Your task to perform on an android device: turn off notifications in google photos Image 0: 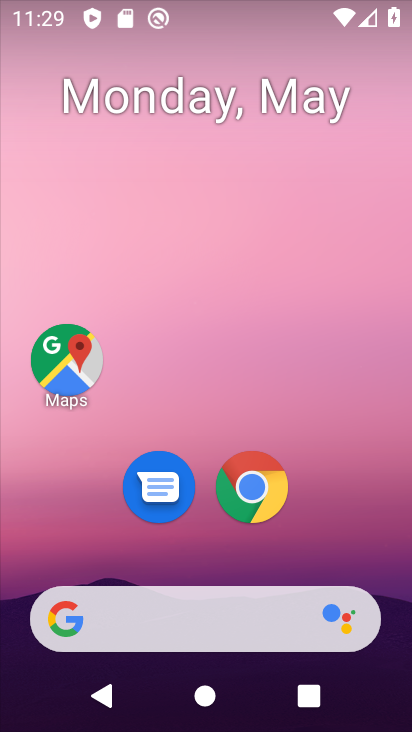
Step 0: drag from (9, 584) to (239, 218)
Your task to perform on an android device: turn off notifications in google photos Image 1: 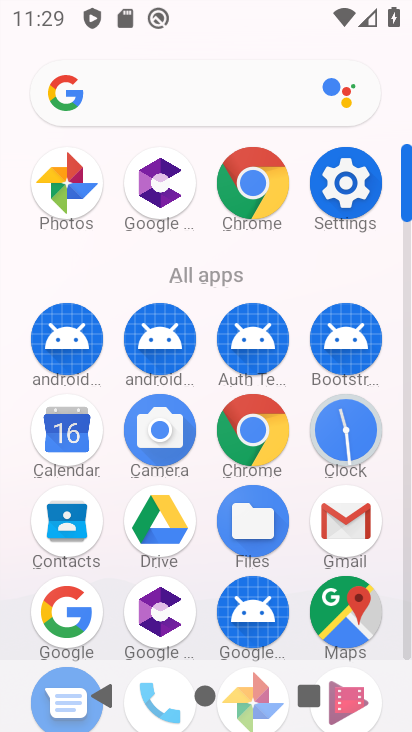
Step 1: click (72, 188)
Your task to perform on an android device: turn off notifications in google photos Image 2: 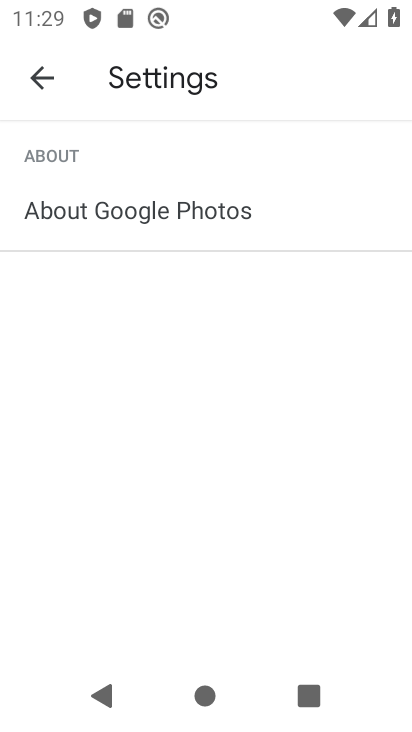
Step 2: click (36, 81)
Your task to perform on an android device: turn off notifications in google photos Image 3: 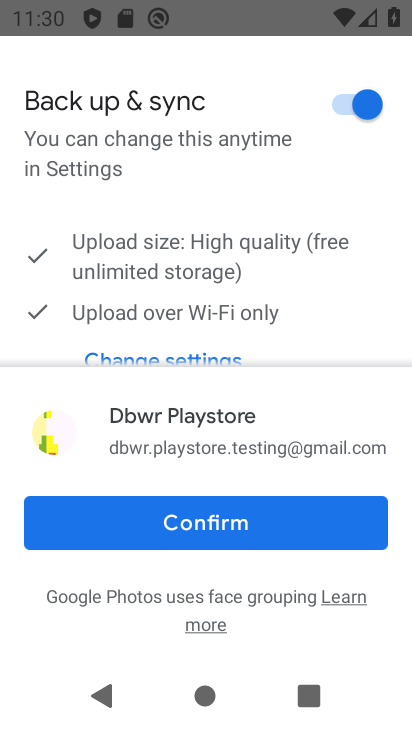
Step 3: click (215, 522)
Your task to perform on an android device: turn off notifications in google photos Image 4: 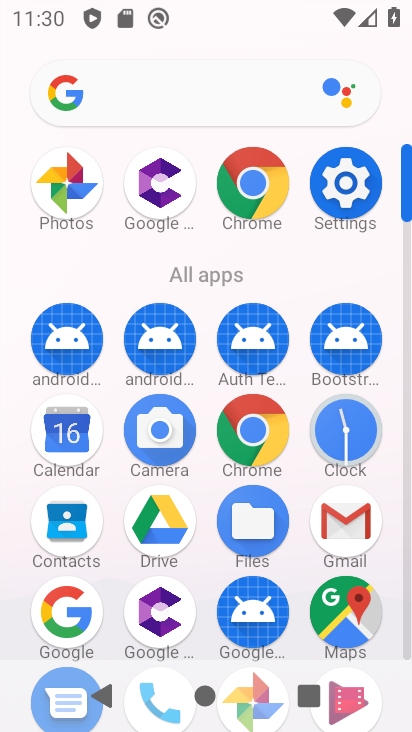
Step 4: click (59, 179)
Your task to perform on an android device: turn off notifications in google photos Image 5: 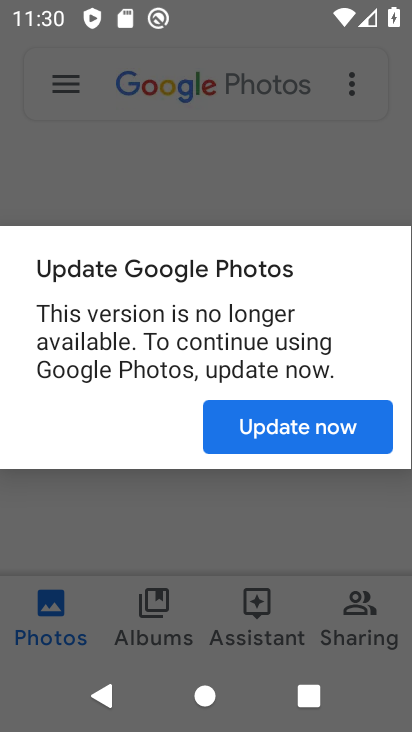
Step 5: click (275, 422)
Your task to perform on an android device: turn off notifications in google photos Image 6: 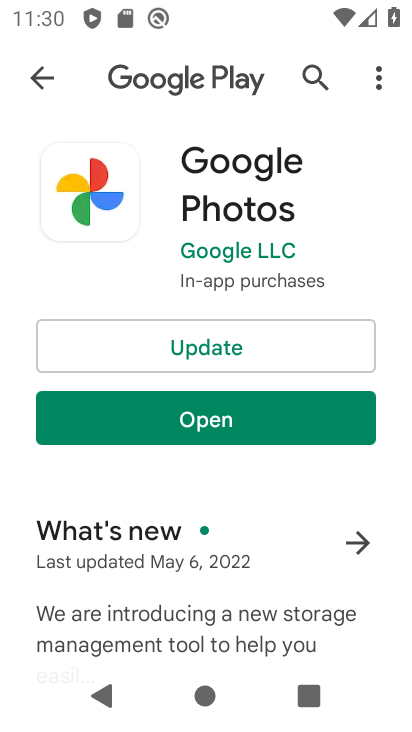
Step 6: click (243, 411)
Your task to perform on an android device: turn off notifications in google photos Image 7: 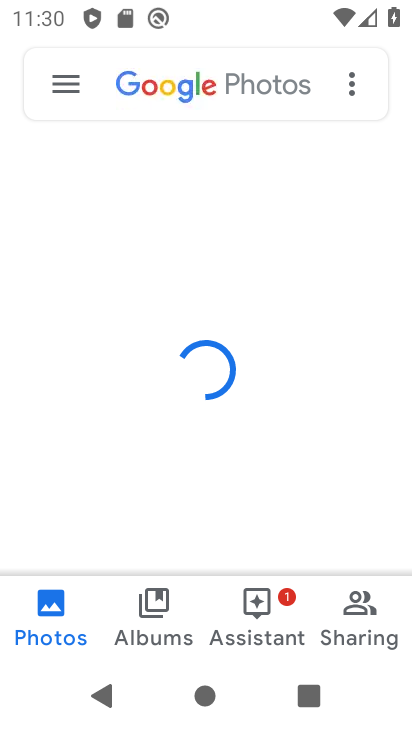
Step 7: click (63, 89)
Your task to perform on an android device: turn off notifications in google photos Image 8: 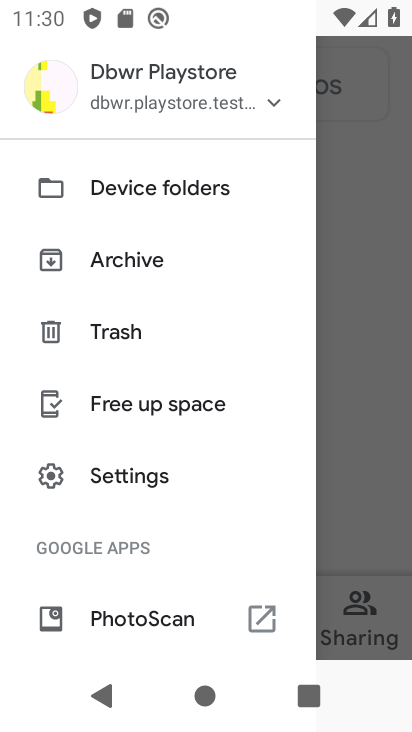
Step 8: click (120, 473)
Your task to perform on an android device: turn off notifications in google photos Image 9: 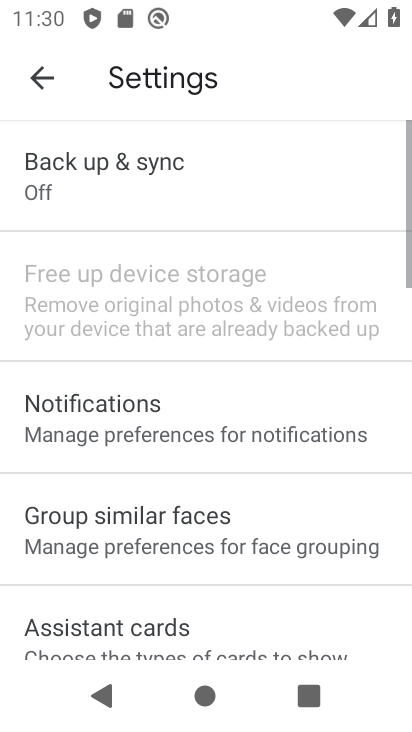
Step 9: click (116, 422)
Your task to perform on an android device: turn off notifications in google photos Image 10: 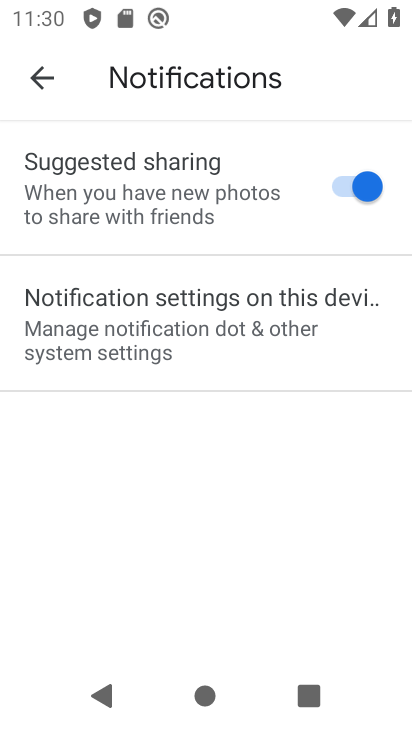
Step 10: click (386, 202)
Your task to perform on an android device: turn off notifications in google photos Image 11: 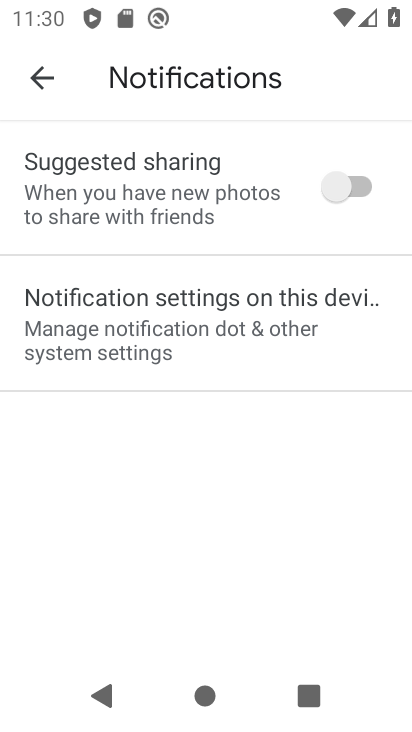
Step 11: task complete